Your task to perform on an android device: uninstall "TextNow: Call + Text Unlimited" Image 0: 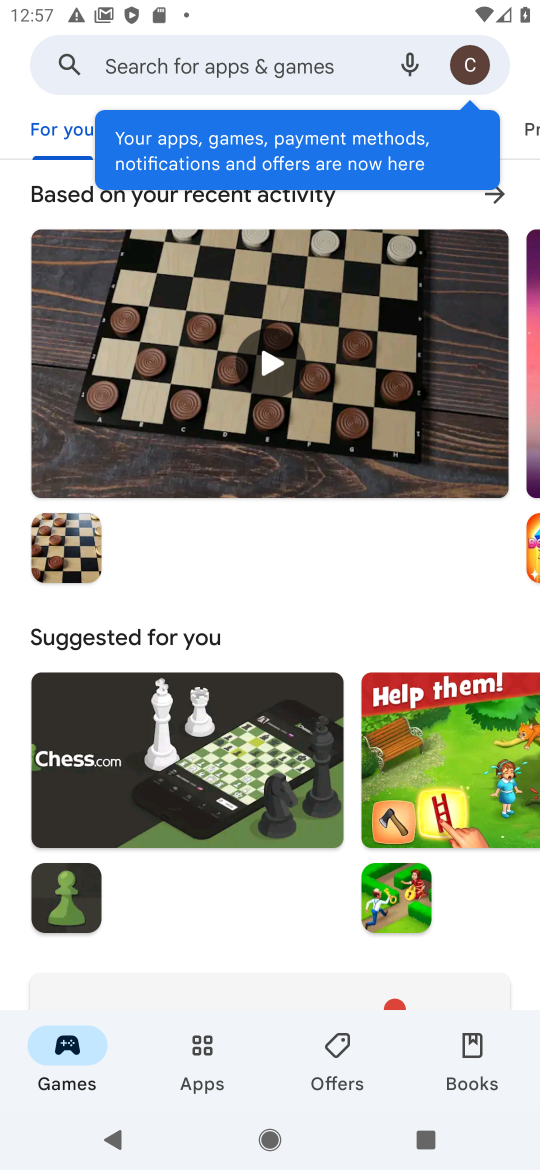
Step 0: click (281, 68)
Your task to perform on an android device: uninstall "TextNow: Call + Text Unlimited" Image 1: 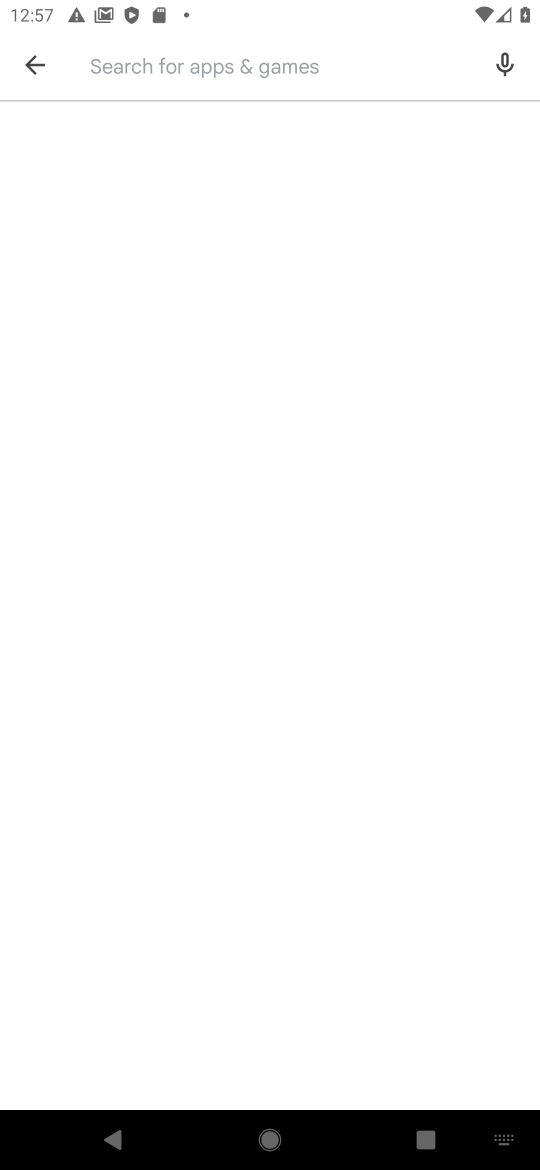
Step 1: type "textnow: call + text unlimited"
Your task to perform on an android device: uninstall "TextNow: Call + Text Unlimited" Image 2: 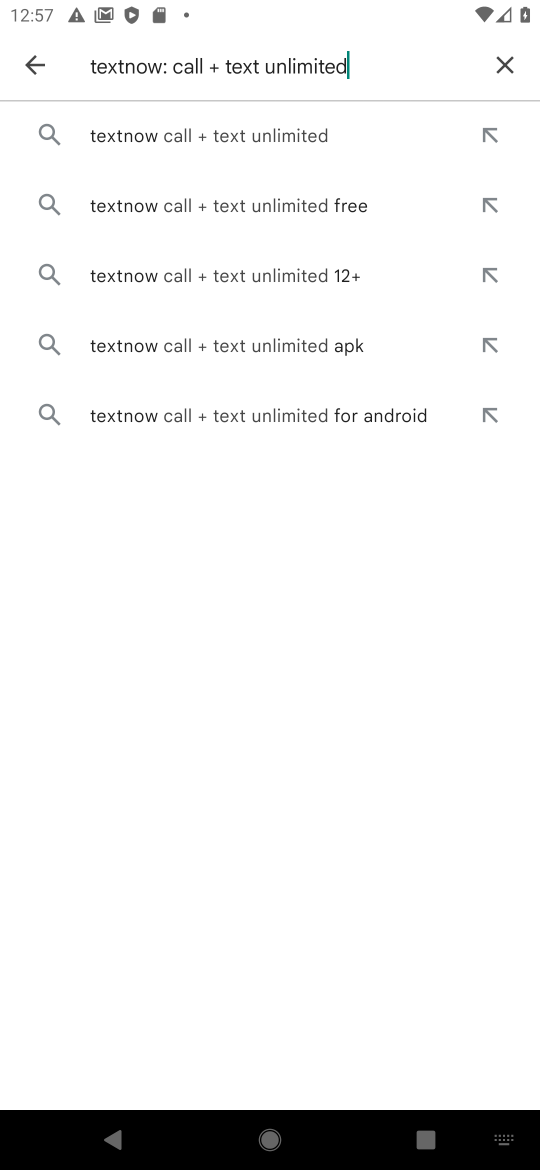
Step 2: click (76, 137)
Your task to perform on an android device: uninstall "TextNow: Call + Text Unlimited" Image 3: 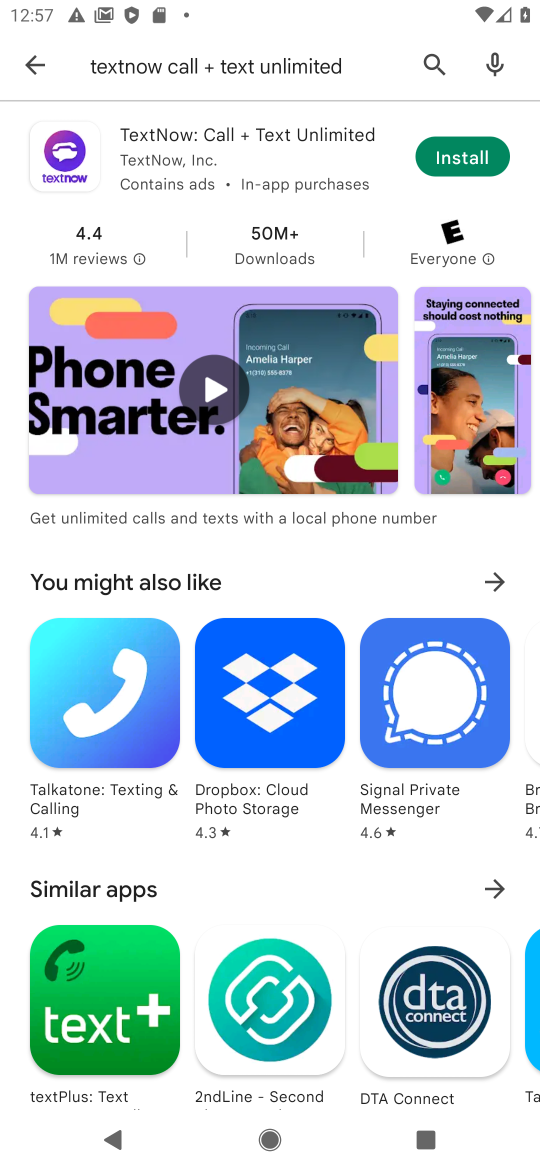
Step 3: click (220, 132)
Your task to perform on an android device: uninstall "TextNow: Call + Text Unlimited" Image 4: 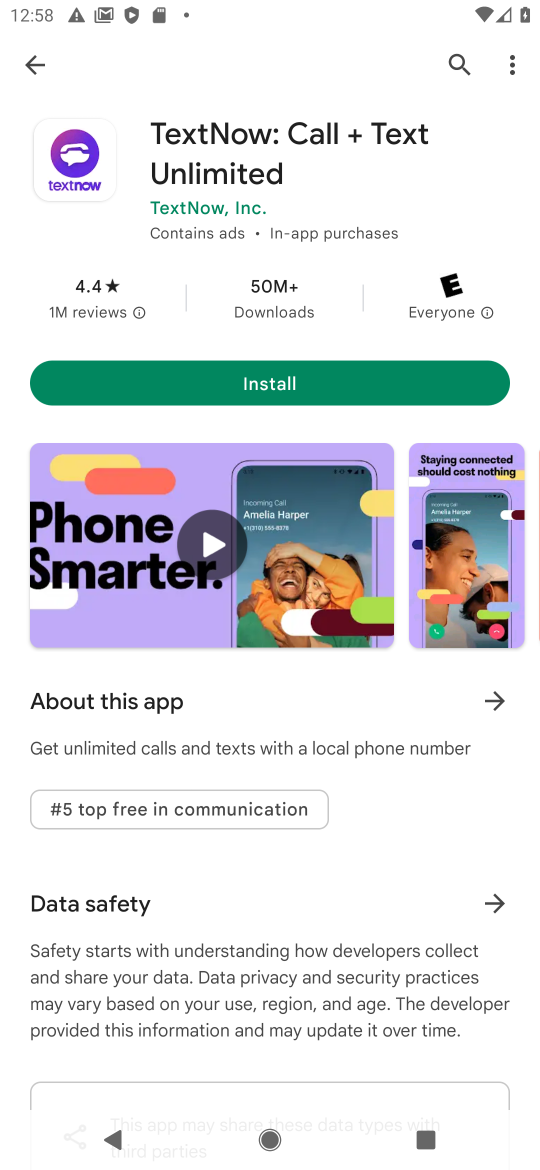
Step 4: task complete